Your task to perform on an android device: Open calendar and show me the fourth week of next month Image 0: 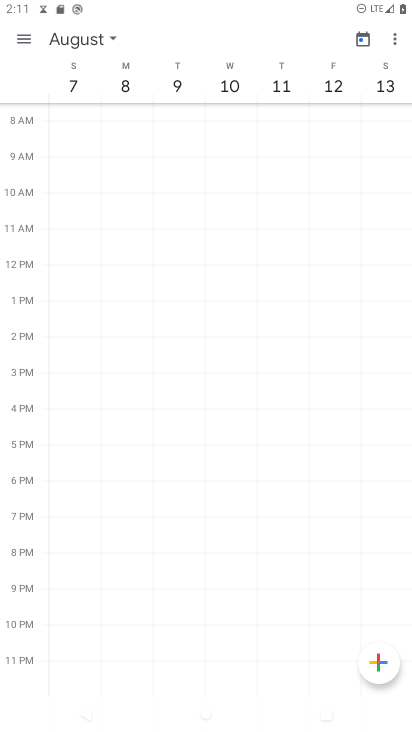
Step 0: click (110, 35)
Your task to perform on an android device: Open calendar and show me the fourth week of next month Image 1: 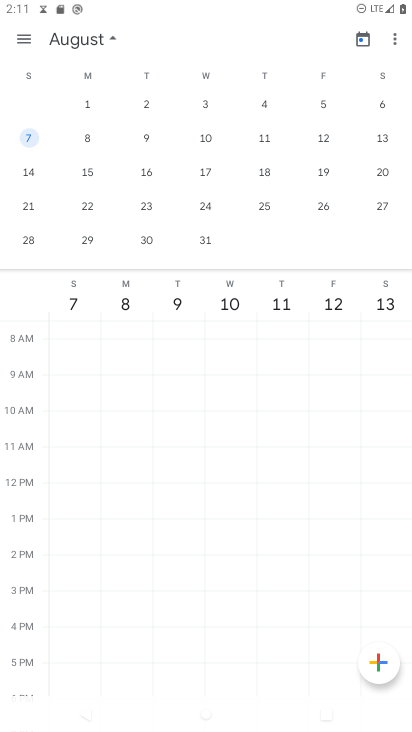
Step 1: click (207, 205)
Your task to perform on an android device: Open calendar and show me the fourth week of next month Image 2: 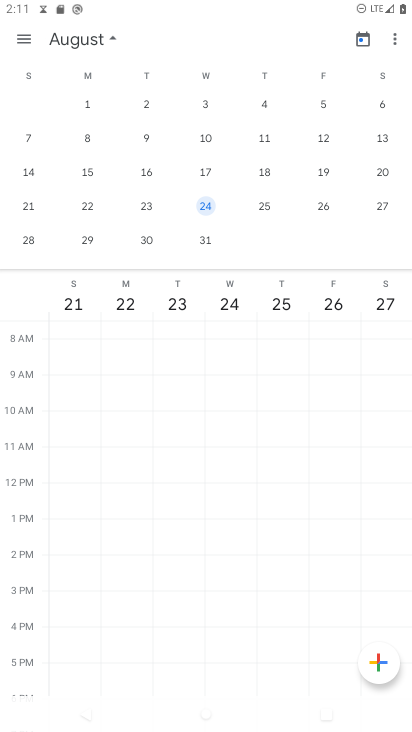
Step 2: task complete